Your task to perform on an android device: Go to Android settings Image 0: 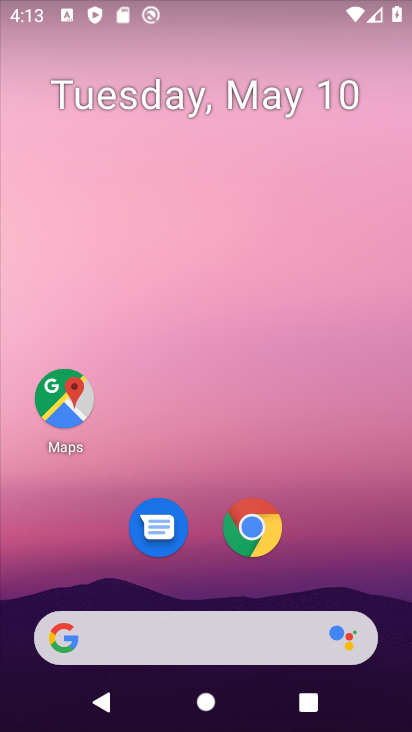
Step 0: drag from (316, 540) to (253, 106)
Your task to perform on an android device: Go to Android settings Image 1: 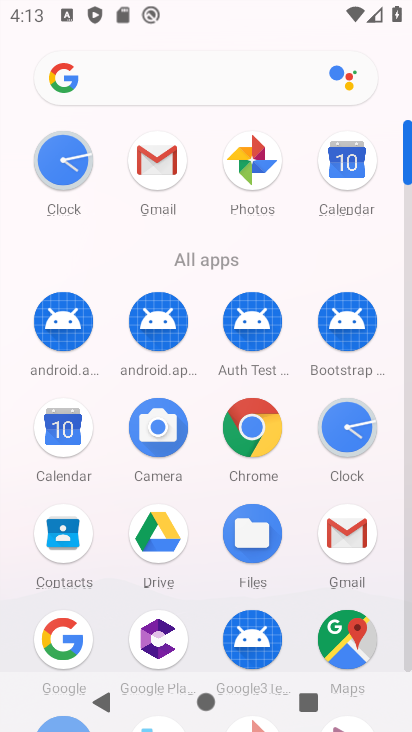
Step 1: drag from (193, 520) to (159, 182)
Your task to perform on an android device: Go to Android settings Image 2: 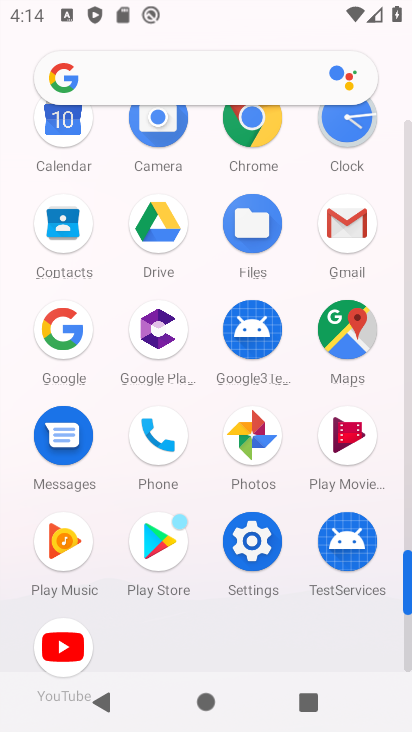
Step 2: click (258, 531)
Your task to perform on an android device: Go to Android settings Image 3: 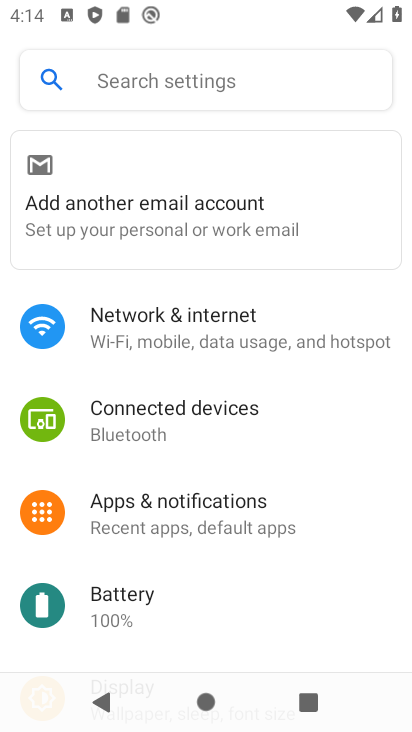
Step 3: drag from (204, 546) to (206, 131)
Your task to perform on an android device: Go to Android settings Image 4: 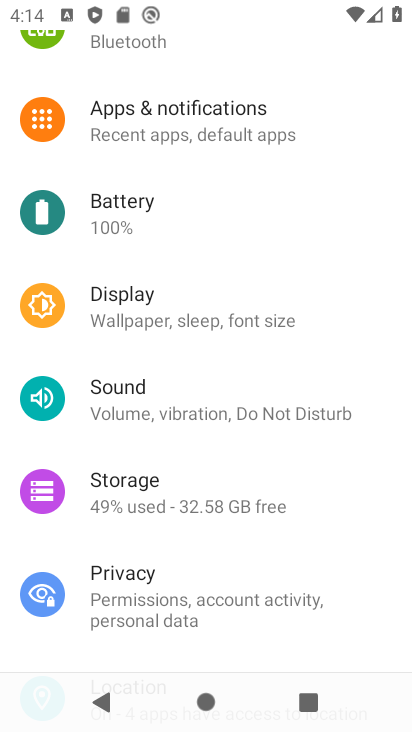
Step 4: drag from (117, 581) to (159, 114)
Your task to perform on an android device: Go to Android settings Image 5: 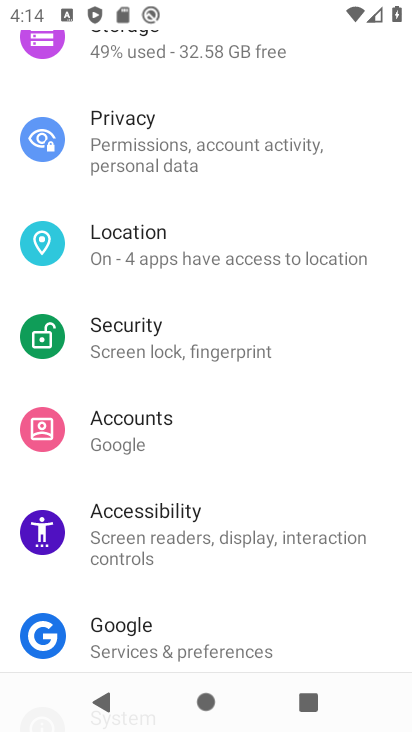
Step 5: click (210, 642)
Your task to perform on an android device: Go to Android settings Image 6: 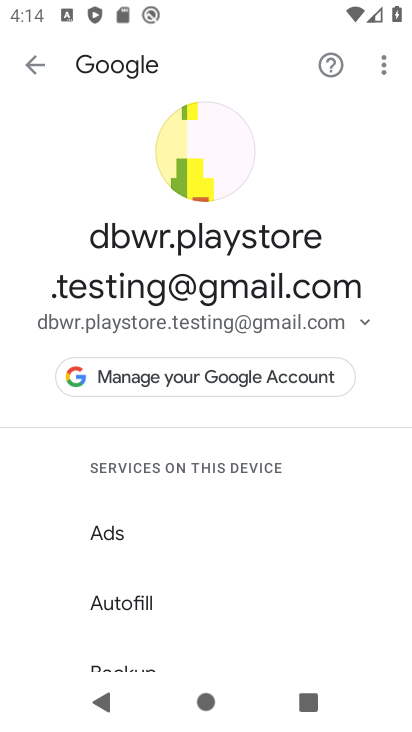
Step 6: click (24, 56)
Your task to perform on an android device: Go to Android settings Image 7: 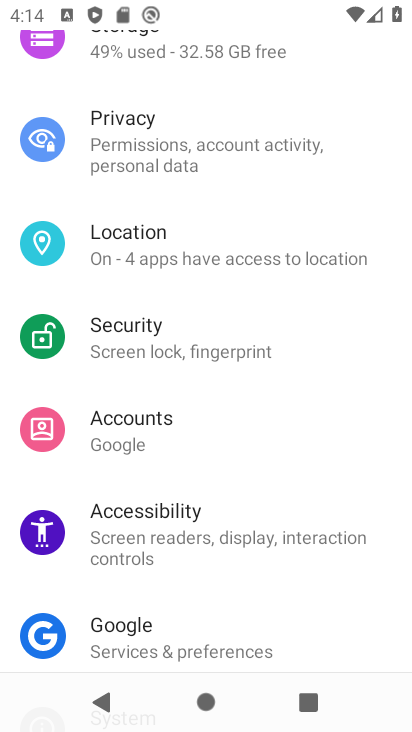
Step 7: drag from (208, 593) to (222, 74)
Your task to perform on an android device: Go to Android settings Image 8: 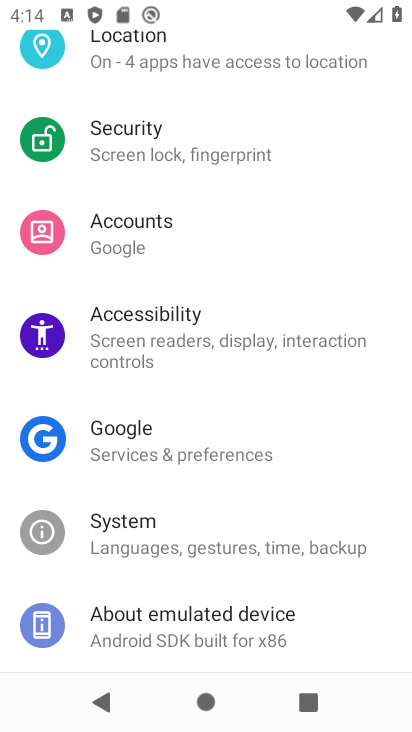
Step 8: click (196, 613)
Your task to perform on an android device: Go to Android settings Image 9: 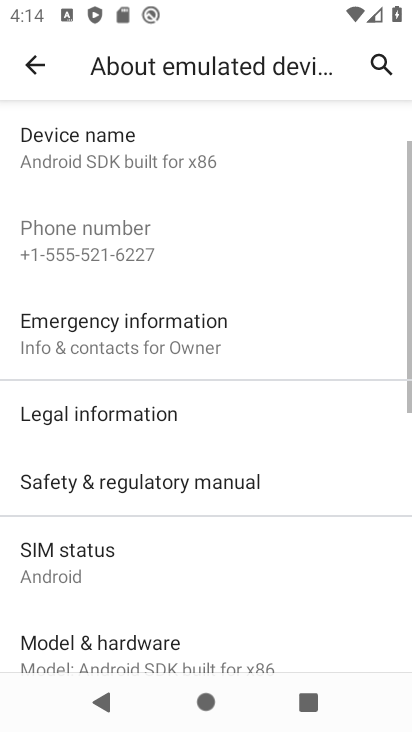
Step 9: task complete